Your task to perform on an android device: Open Google Chrome and click the shortcut for Amazon.com Image 0: 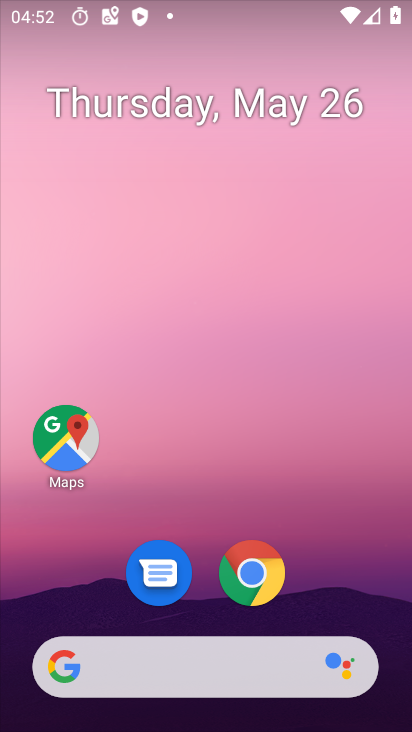
Step 0: click (259, 574)
Your task to perform on an android device: Open Google Chrome and click the shortcut for Amazon.com Image 1: 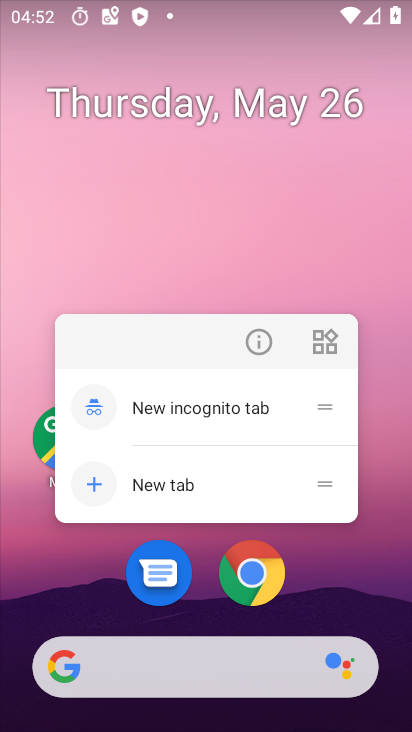
Step 1: click (249, 576)
Your task to perform on an android device: Open Google Chrome and click the shortcut for Amazon.com Image 2: 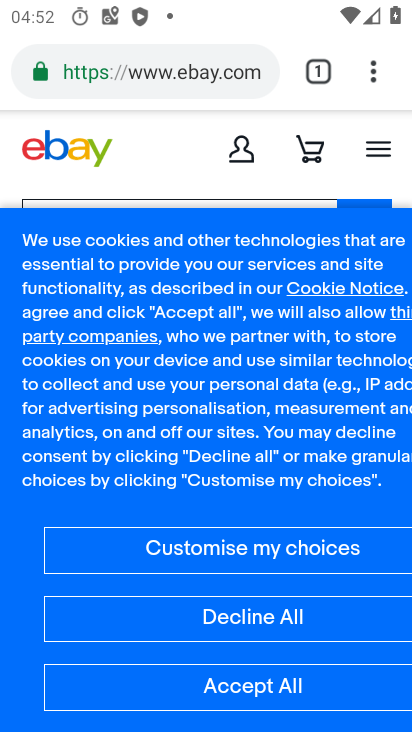
Step 2: press back button
Your task to perform on an android device: Open Google Chrome and click the shortcut for Amazon.com Image 3: 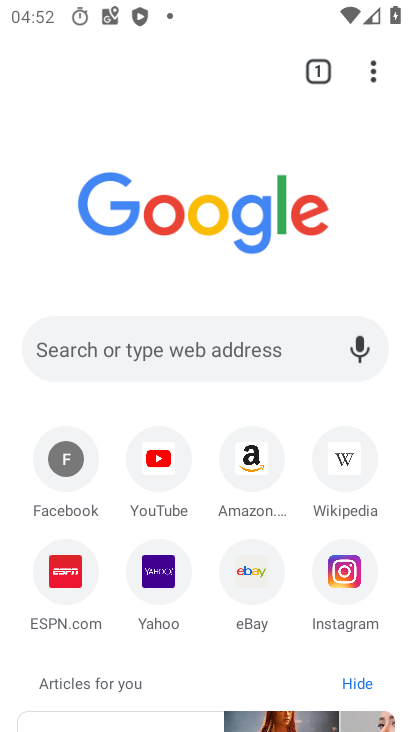
Step 3: click (246, 459)
Your task to perform on an android device: Open Google Chrome and click the shortcut for Amazon.com Image 4: 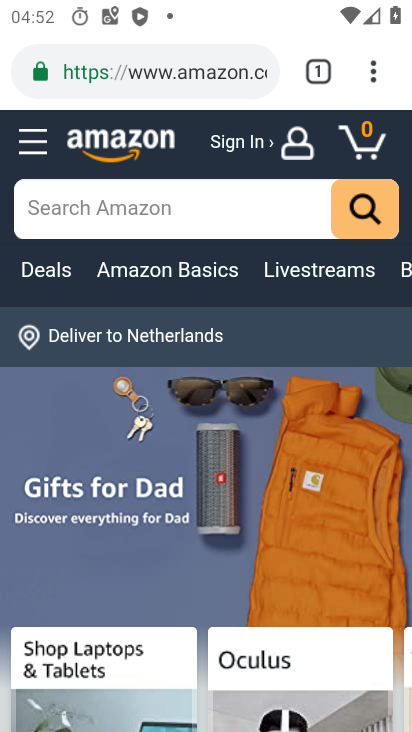
Step 4: task complete